Your task to perform on an android device: What's the weather today? Image 0: 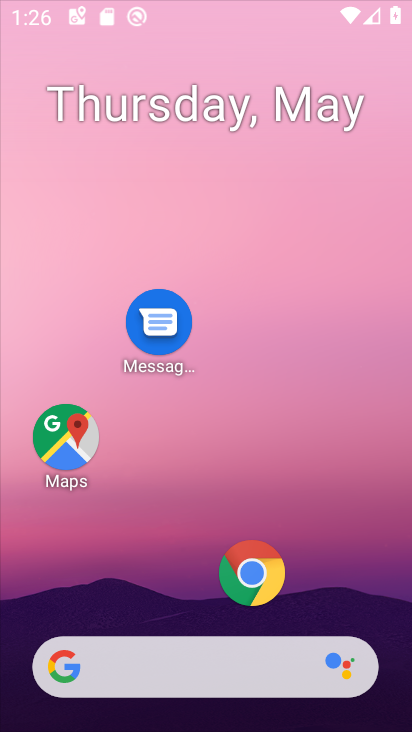
Step 0: drag from (234, 17) to (142, 15)
Your task to perform on an android device: What's the weather today? Image 1: 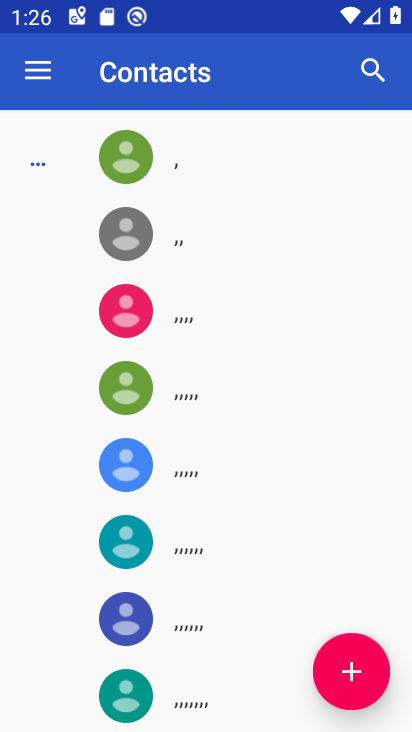
Step 1: press home button
Your task to perform on an android device: What's the weather today? Image 2: 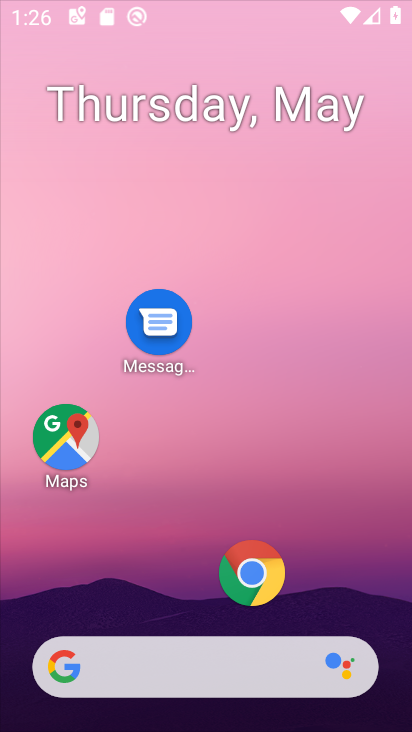
Step 2: drag from (228, 611) to (201, 59)
Your task to perform on an android device: What's the weather today? Image 3: 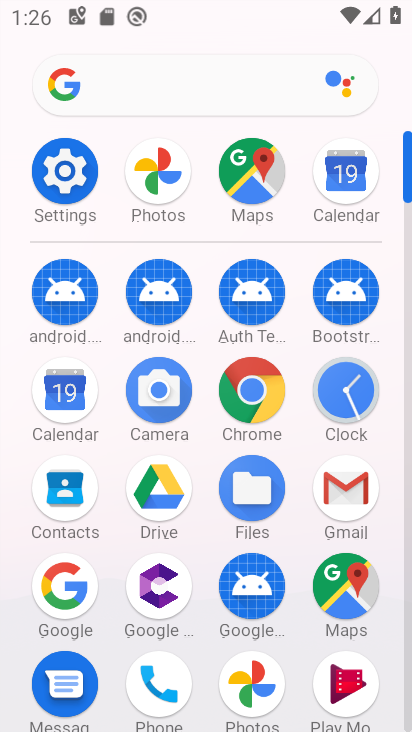
Step 3: click (58, 180)
Your task to perform on an android device: What's the weather today? Image 4: 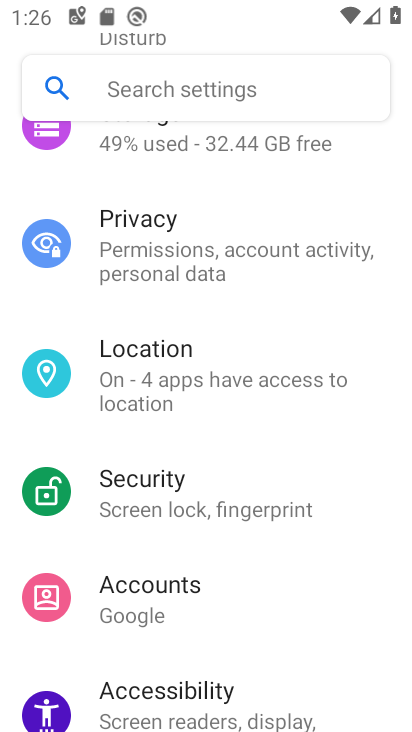
Step 4: drag from (193, 624) to (330, 518)
Your task to perform on an android device: What's the weather today? Image 5: 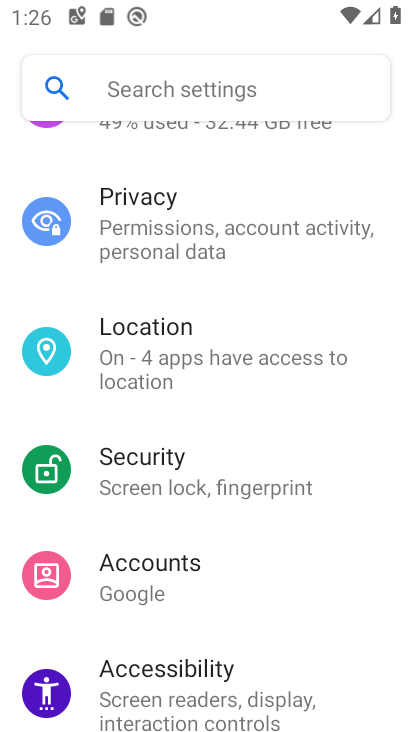
Step 5: click (130, 363)
Your task to perform on an android device: What's the weather today? Image 6: 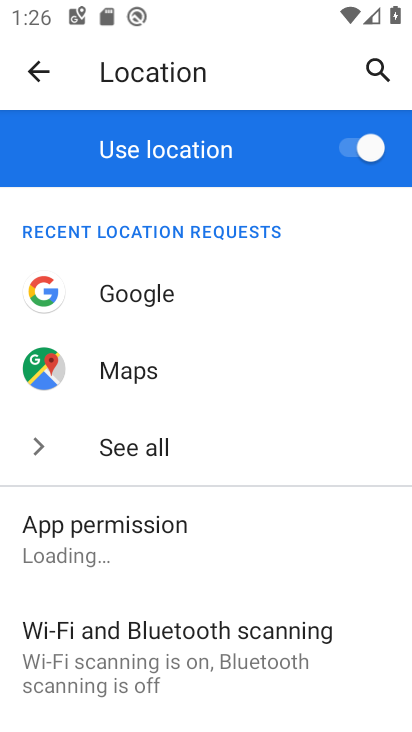
Step 6: click (187, 660)
Your task to perform on an android device: What's the weather today? Image 7: 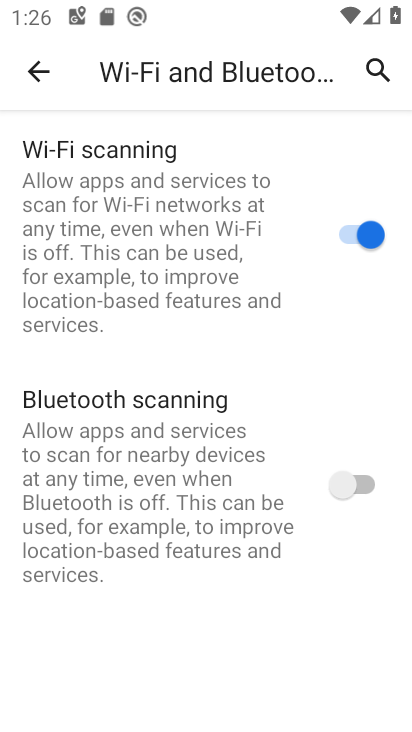
Step 7: press home button
Your task to perform on an android device: What's the weather today? Image 8: 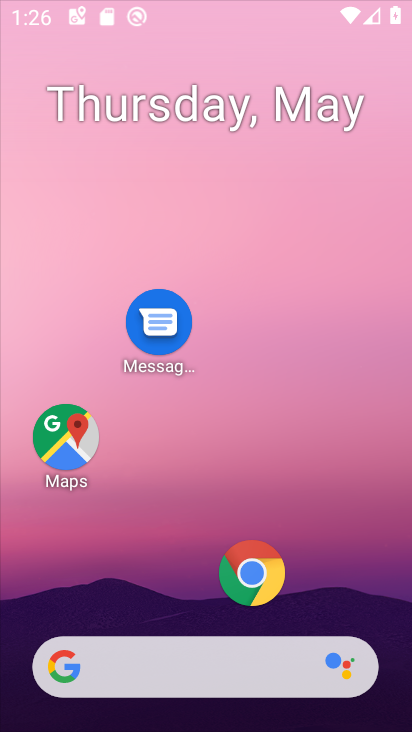
Step 8: drag from (220, 591) to (295, 141)
Your task to perform on an android device: What's the weather today? Image 9: 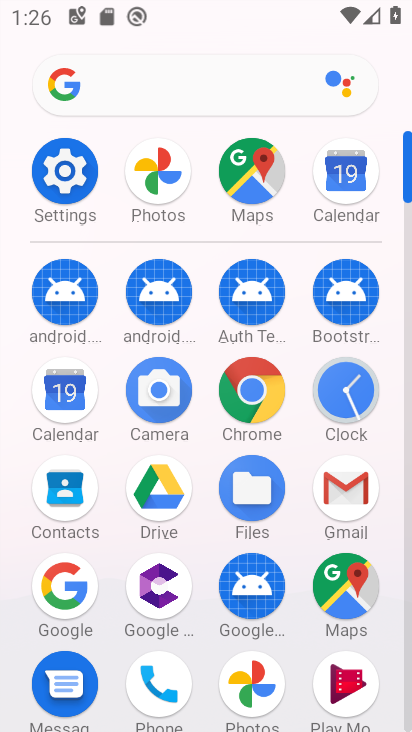
Step 9: click (155, 95)
Your task to perform on an android device: What's the weather today? Image 10: 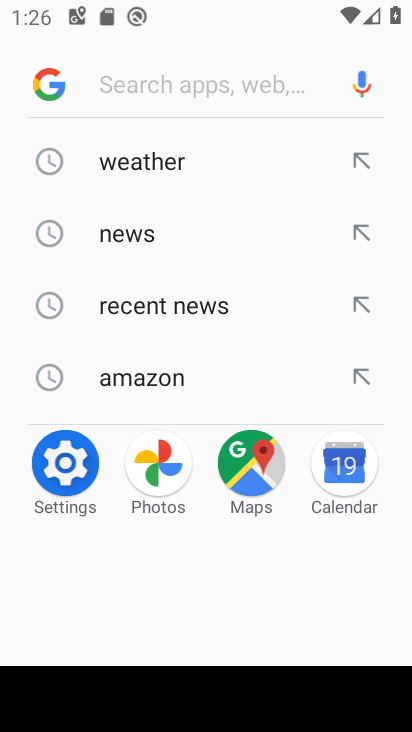
Step 10: click (152, 160)
Your task to perform on an android device: What's the weather today? Image 11: 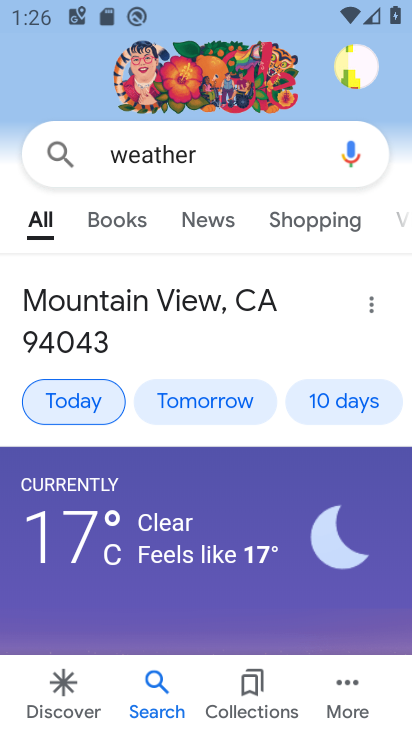
Step 11: task complete